Your task to perform on an android device: open app "Messenger Lite" (install if not already installed) Image 0: 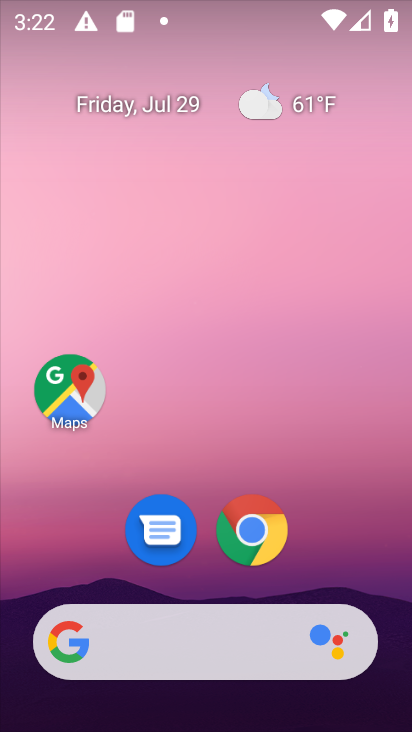
Step 0: drag from (311, 443) to (334, 5)
Your task to perform on an android device: open app "Messenger Lite" (install if not already installed) Image 1: 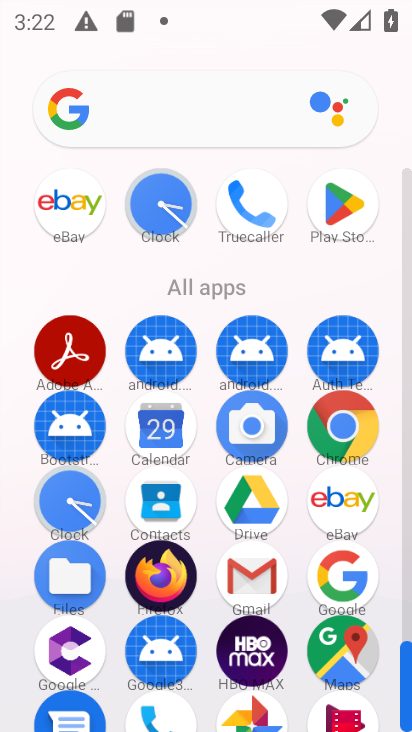
Step 1: click (333, 193)
Your task to perform on an android device: open app "Messenger Lite" (install if not already installed) Image 2: 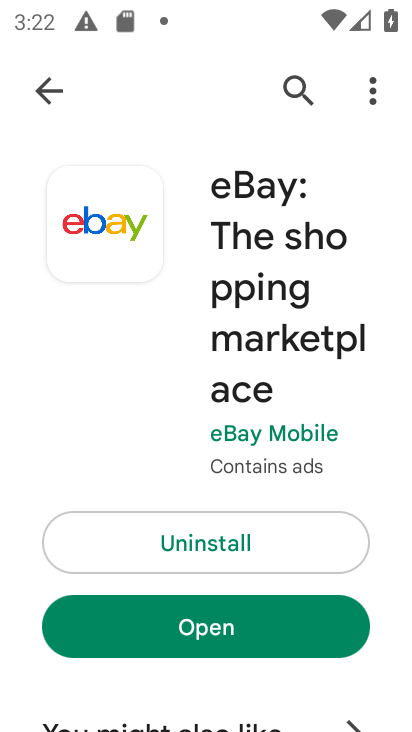
Step 2: click (288, 84)
Your task to perform on an android device: open app "Messenger Lite" (install if not already installed) Image 3: 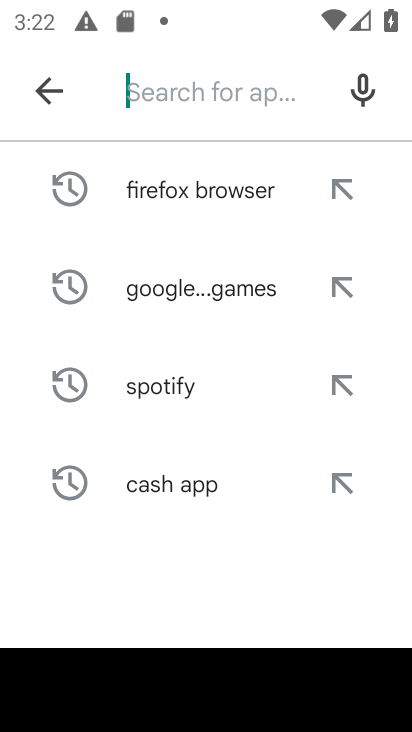
Step 3: type "Messenger Lite"
Your task to perform on an android device: open app "Messenger Lite" (install if not already installed) Image 4: 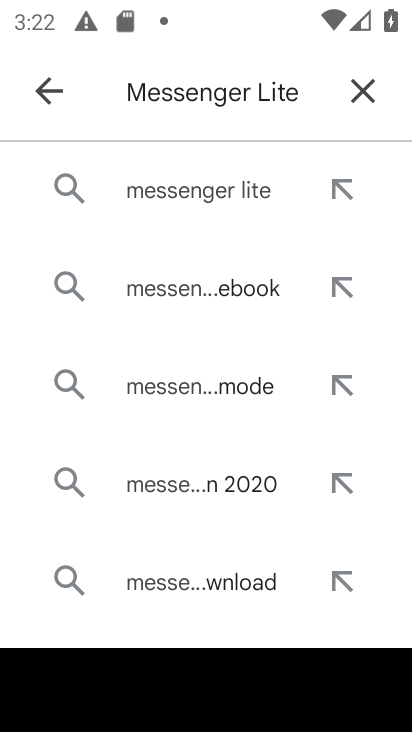
Step 4: click (231, 195)
Your task to perform on an android device: open app "Messenger Lite" (install if not already installed) Image 5: 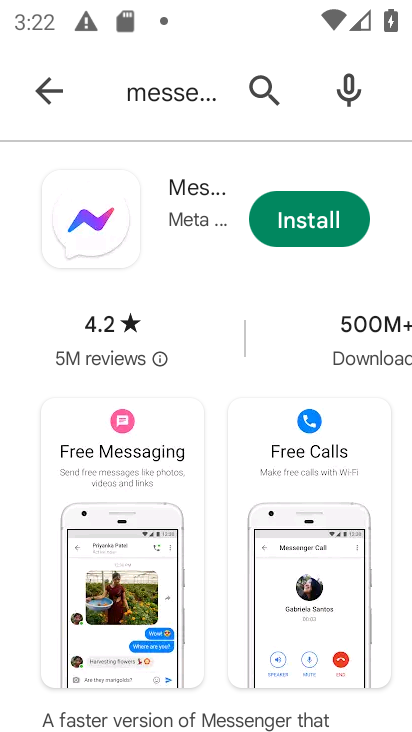
Step 5: click (312, 228)
Your task to perform on an android device: open app "Messenger Lite" (install if not already installed) Image 6: 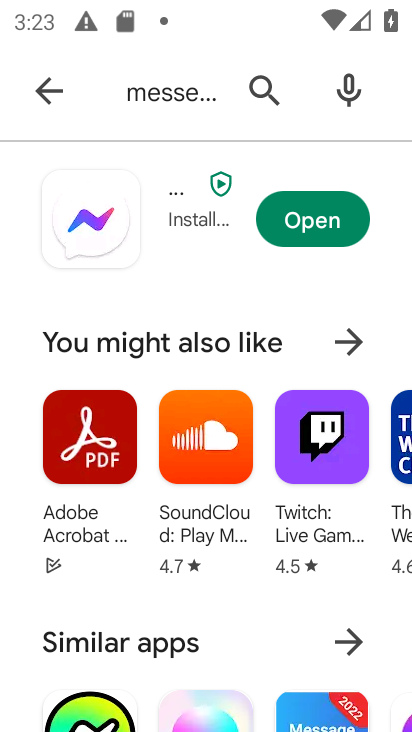
Step 6: click (313, 228)
Your task to perform on an android device: open app "Messenger Lite" (install if not already installed) Image 7: 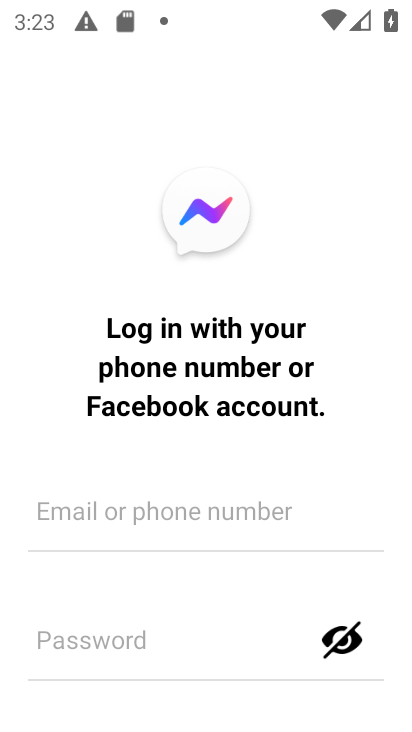
Step 7: task complete